Your task to perform on an android device: Open notification settings Image 0: 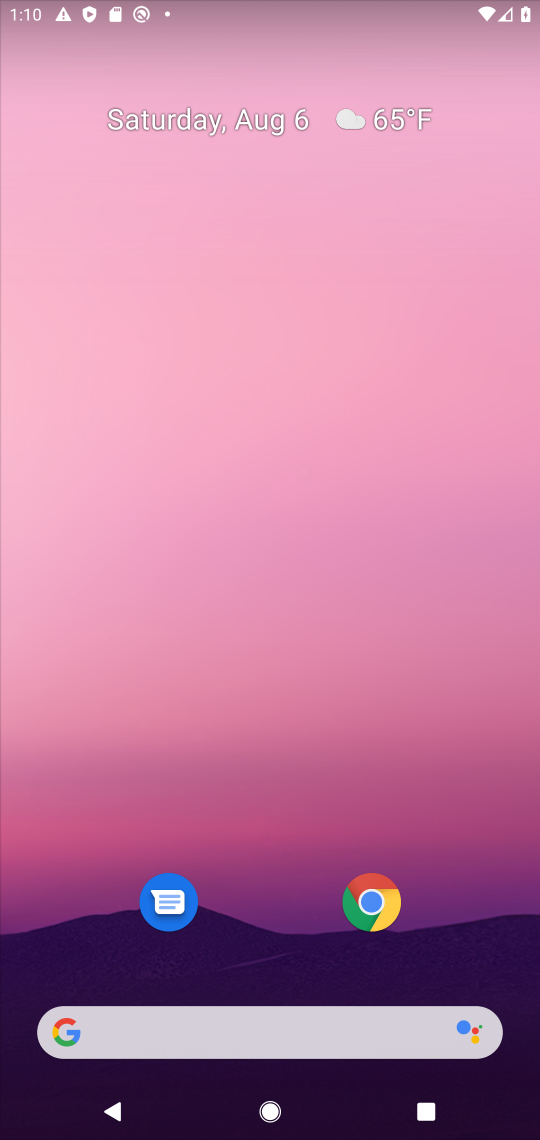
Step 0: drag from (256, 828) to (142, 55)
Your task to perform on an android device: Open notification settings Image 1: 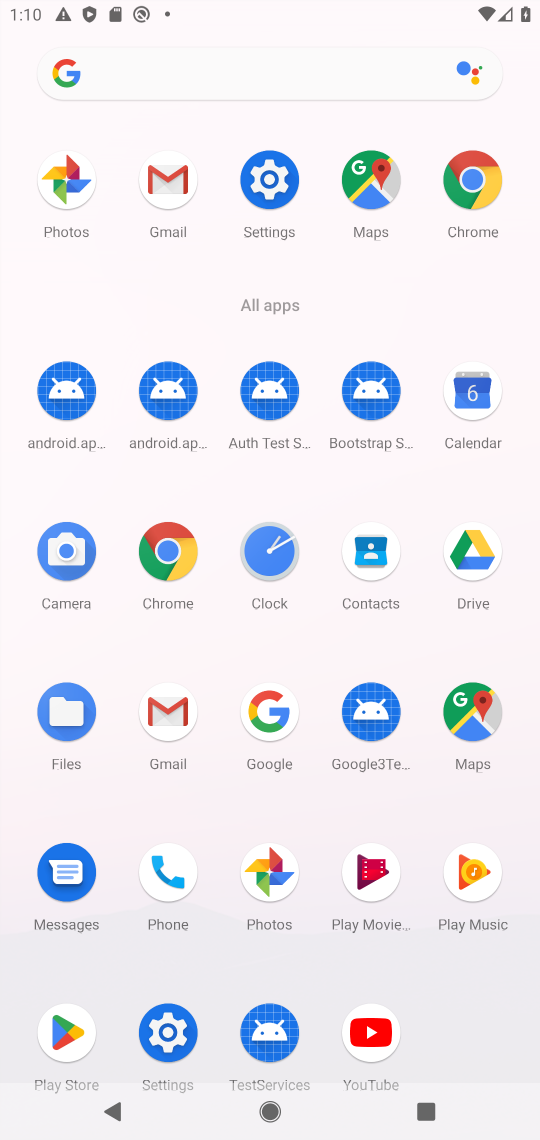
Step 1: click (269, 173)
Your task to perform on an android device: Open notification settings Image 2: 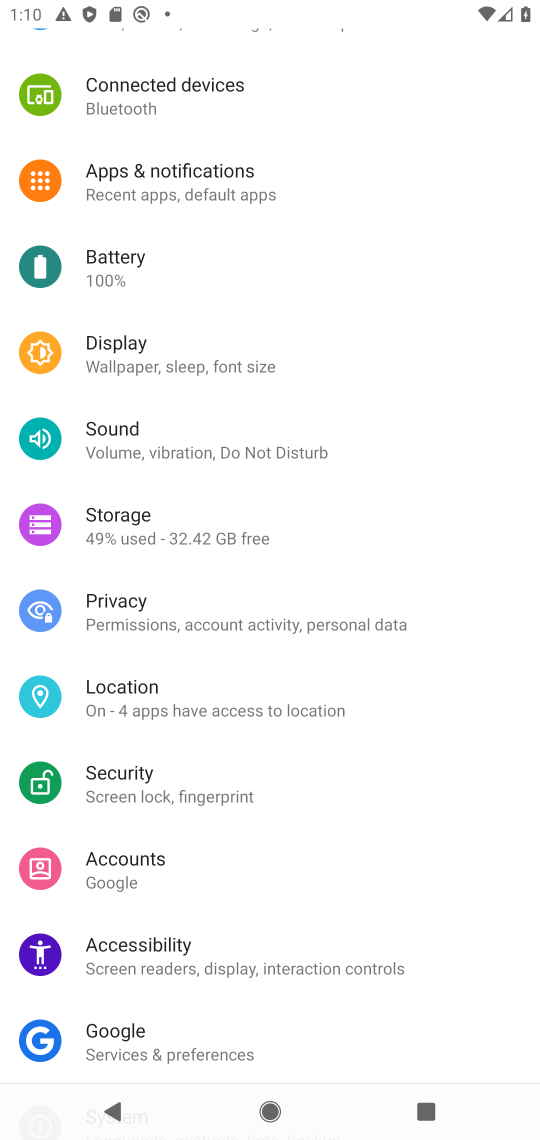
Step 2: click (154, 166)
Your task to perform on an android device: Open notification settings Image 3: 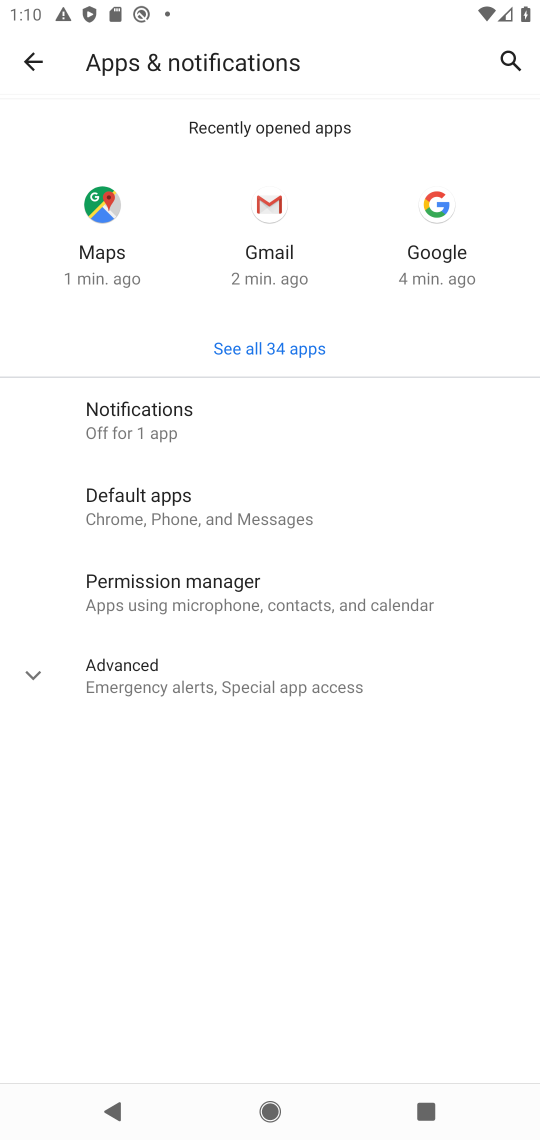
Step 3: click (146, 407)
Your task to perform on an android device: Open notification settings Image 4: 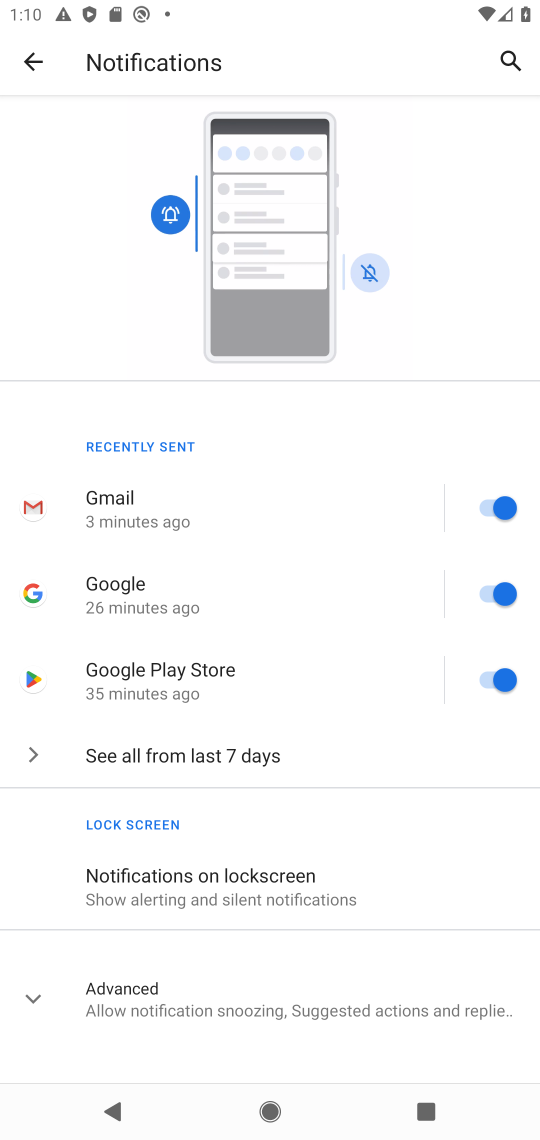
Step 4: task complete